Your task to perform on an android device: Open Yahoo.com Image 0: 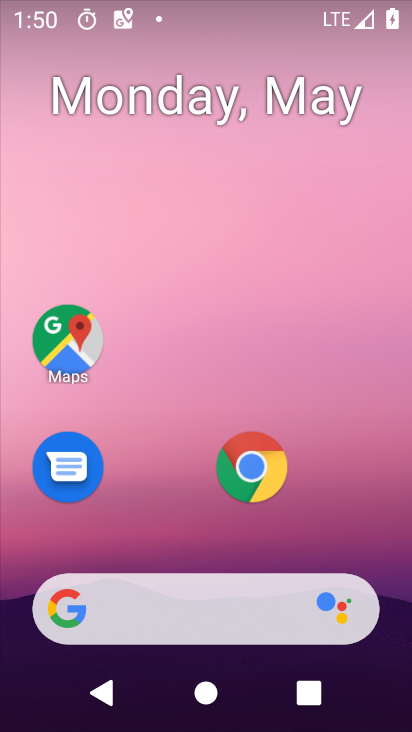
Step 0: drag from (156, 528) to (152, 67)
Your task to perform on an android device: Open Yahoo.com Image 1: 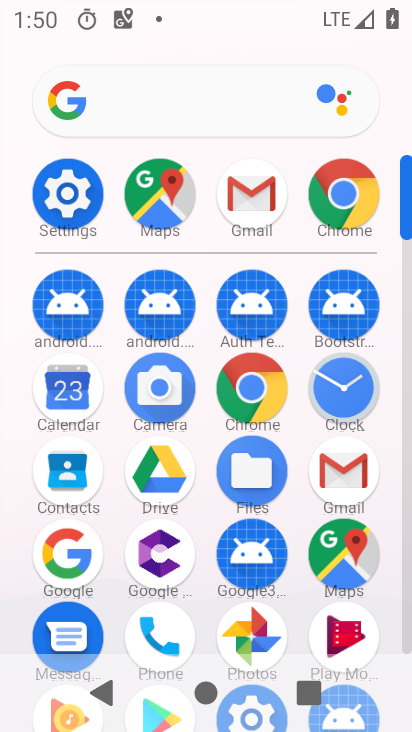
Step 1: click (192, 89)
Your task to perform on an android device: Open Yahoo.com Image 2: 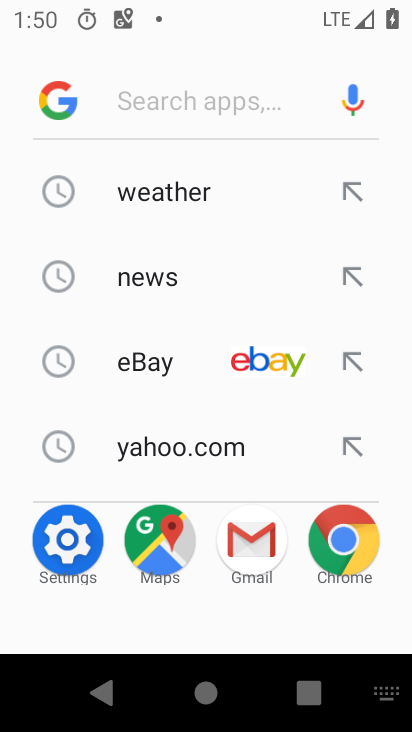
Step 2: click (241, 428)
Your task to perform on an android device: Open Yahoo.com Image 3: 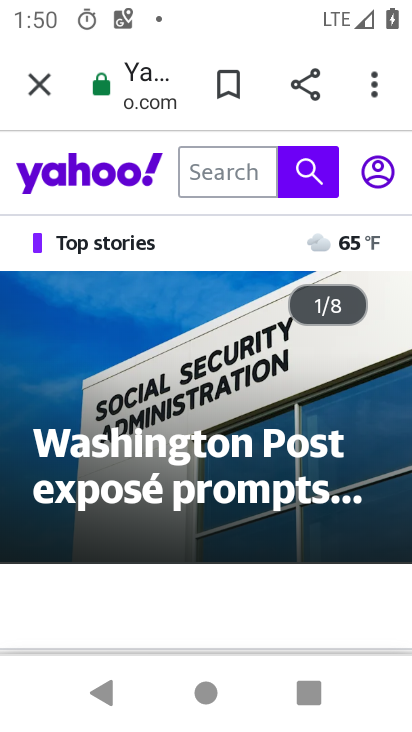
Step 3: task complete